Your task to perform on an android device: Open privacy settings Image 0: 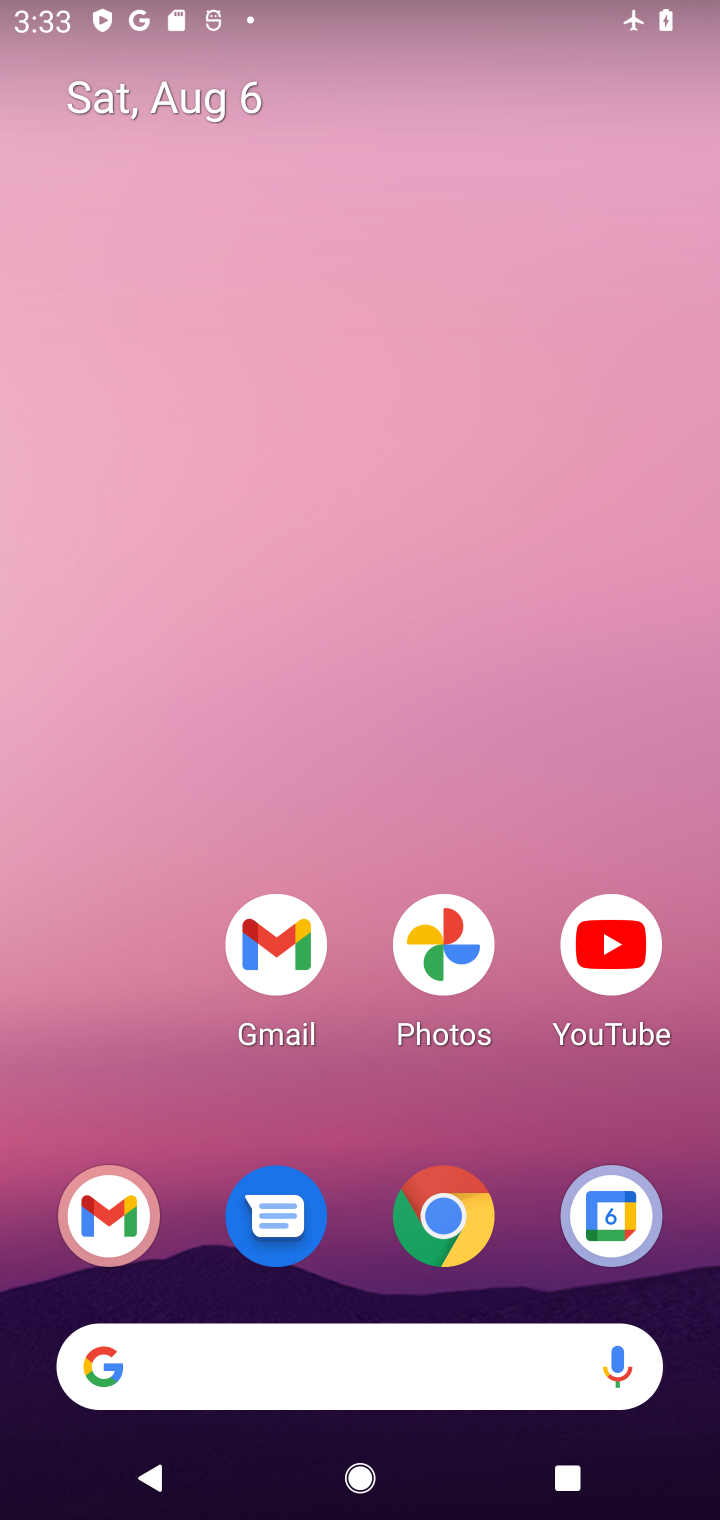
Step 0: click (469, 1214)
Your task to perform on an android device: Open privacy settings Image 1: 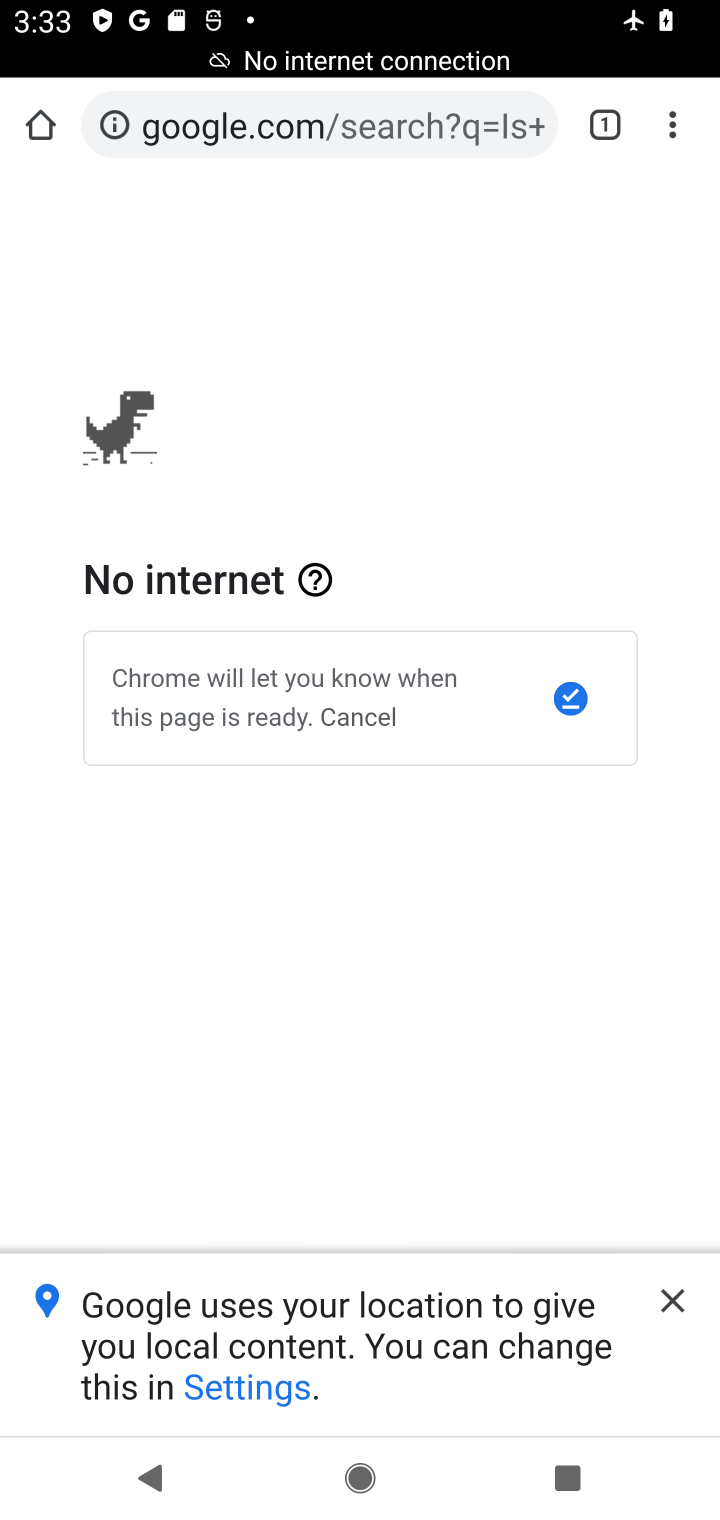
Step 1: click (677, 115)
Your task to perform on an android device: Open privacy settings Image 2: 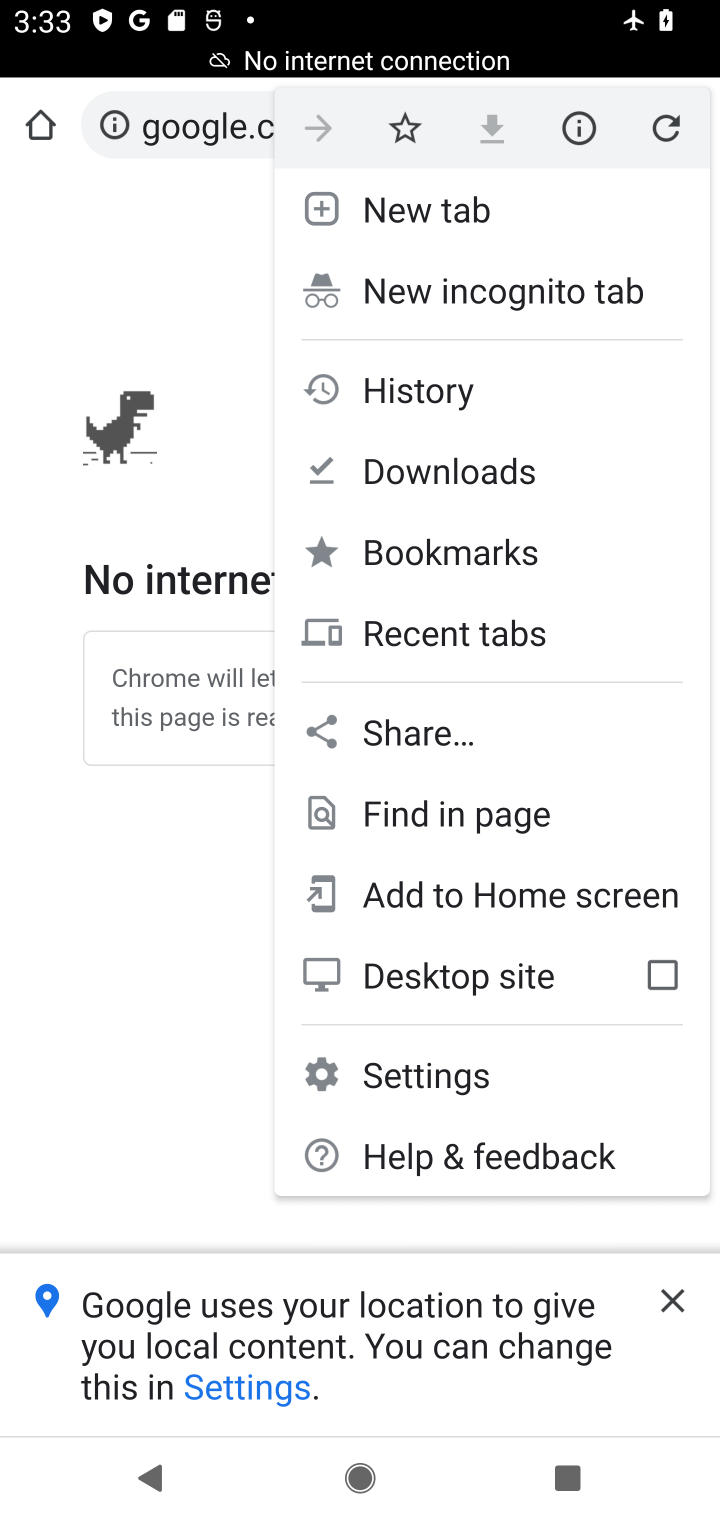
Step 2: click (461, 1065)
Your task to perform on an android device: Open privacy settings Image 3: 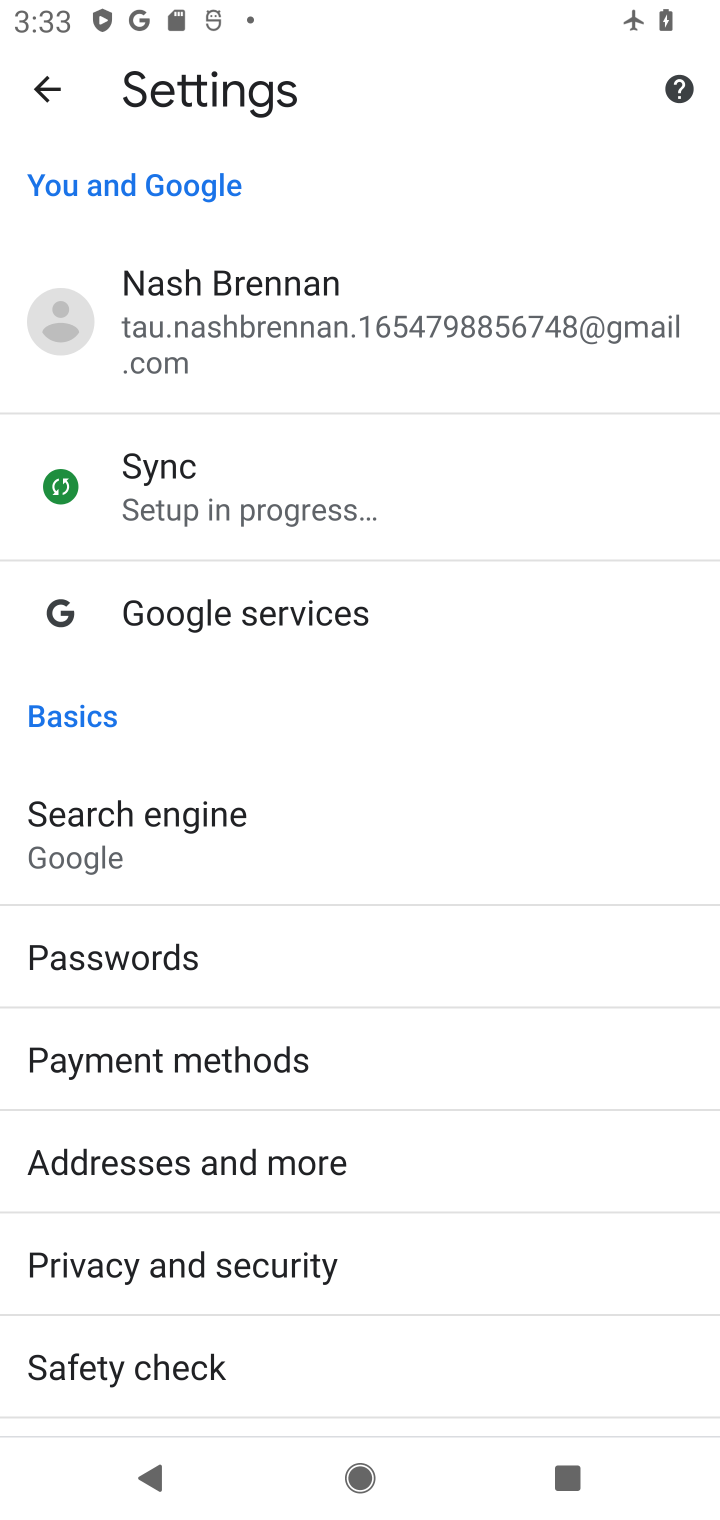
Step 3: click (331, 1256)
Your task to perform on an android device: Open privacy settings Image 4: 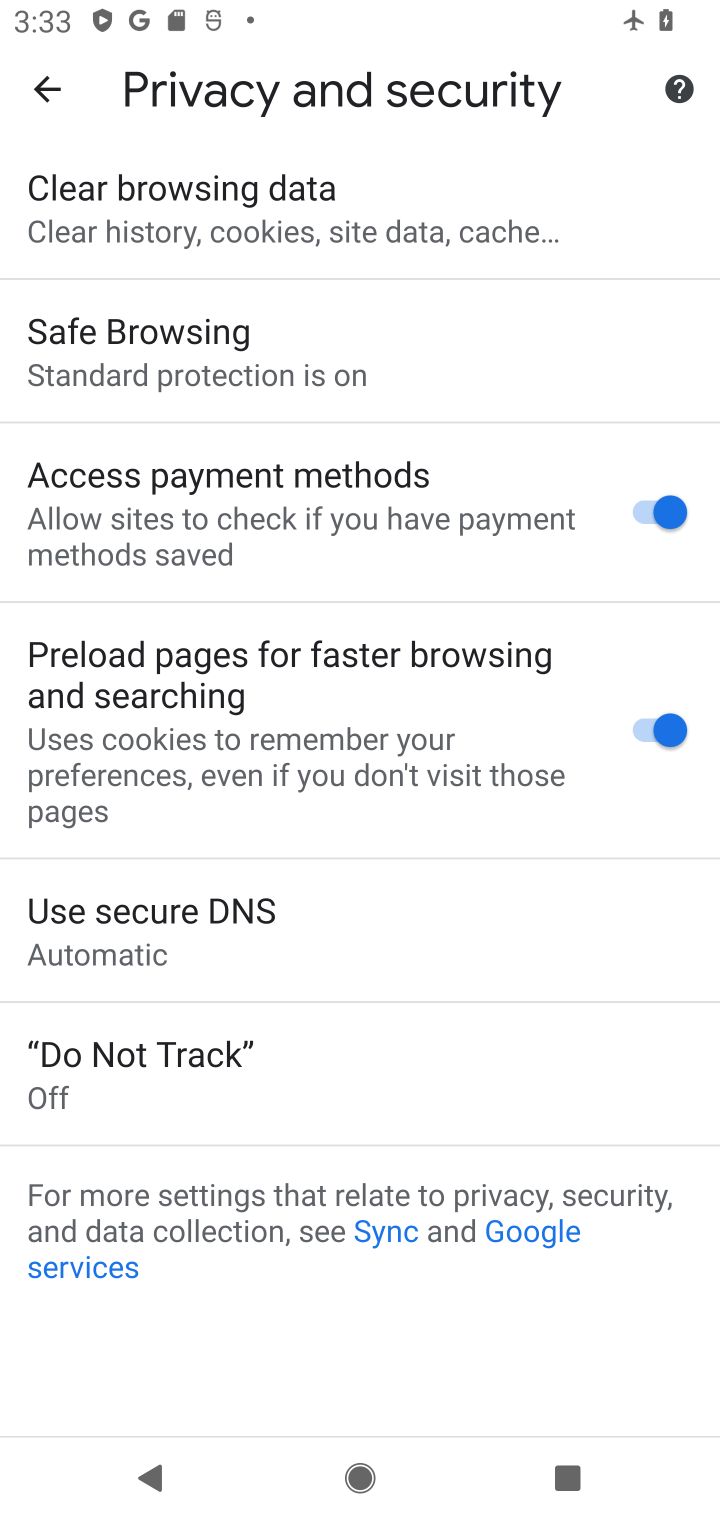
Step 4: task complete